Your task to perform on an android device: open wifi settings Image 0: 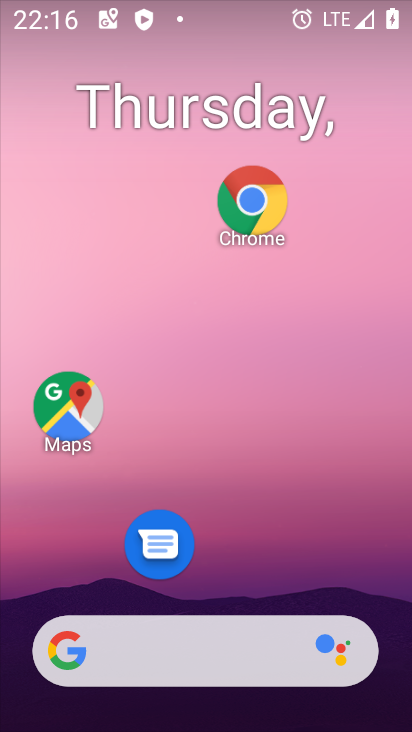
Step 0: drag from (207, 602) to (206, 86)
Your task to perform on an android device: open wifi settings Image 1: 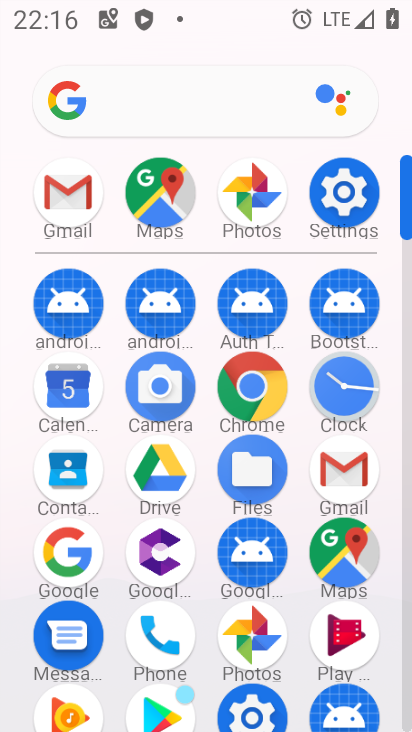
Step 1: click (344, 206)
Your task to perform on an android device: open wifi settings Image 2: 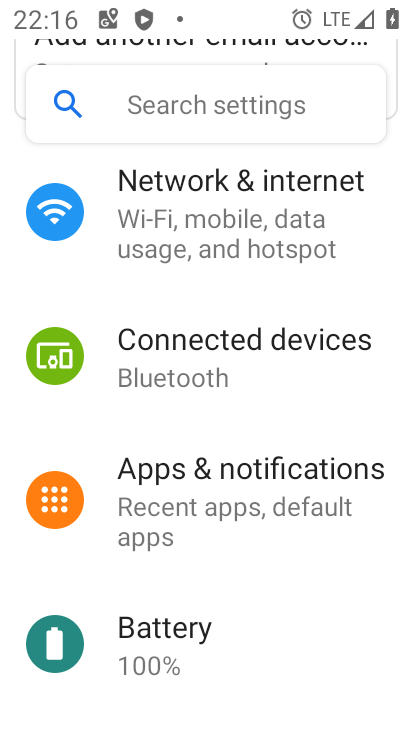
Step 2: click (144, 227)
Your task to perform on an android device: open wifi settings Image 3: 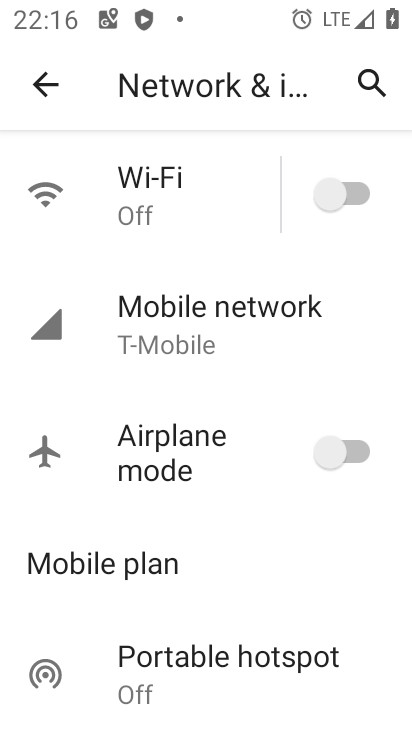
Step 3: click (192, 210)
Your task to perform on an android device: open wifi settings Image 4: 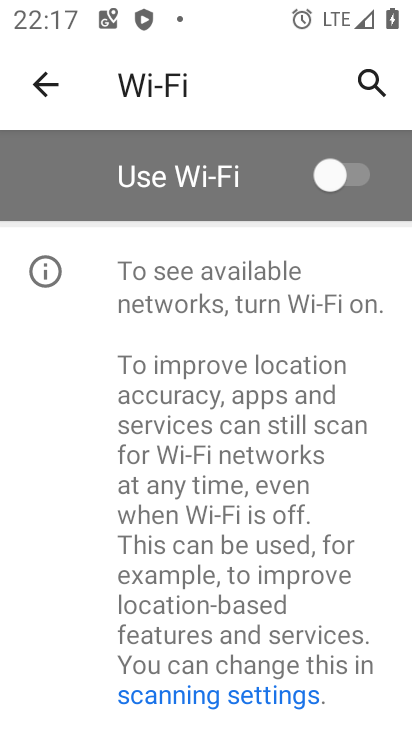
Step 4: task complete